Your task to perform on an android device: turn smart compose on in the gmail app Image 0: 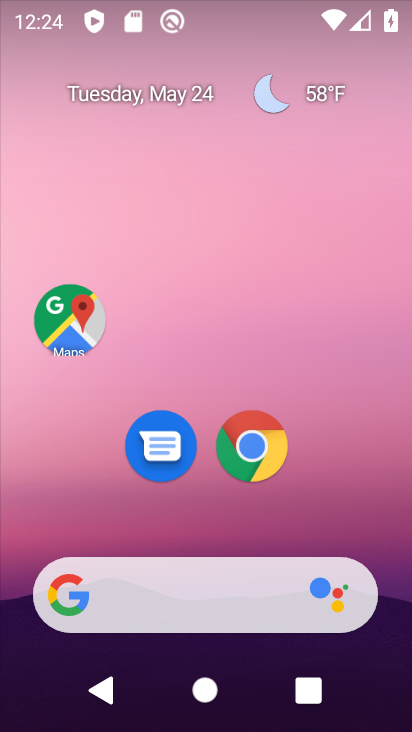
Step 0: drag from (256, 557) to (298, 8)
Your task to perform on an android device: turn smart compose on in the gmail app Image 1: 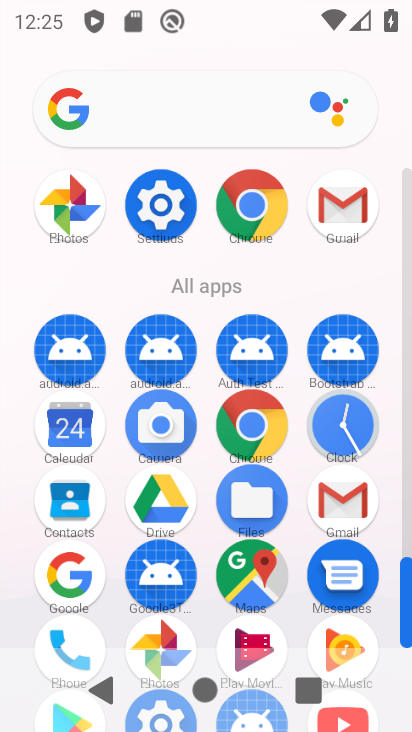
Step 1: click (357, 221)
Your task to perform on an android device: turn smart compose on in the gmail app Image 2: 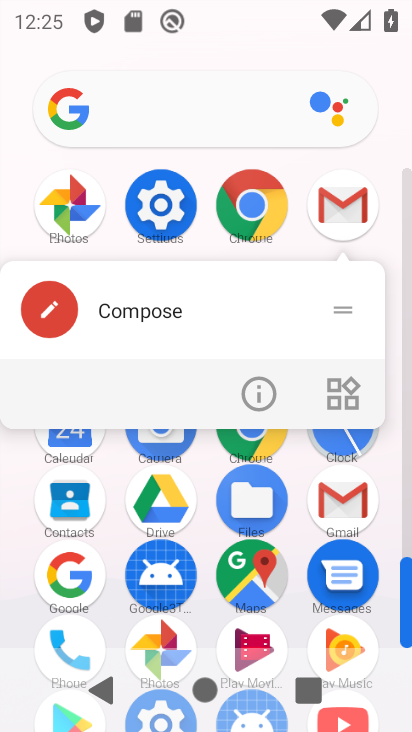
Step 2: click (357, 219)
Your task to perform on an android device: turn smart compose on in the gmail app Image 3: 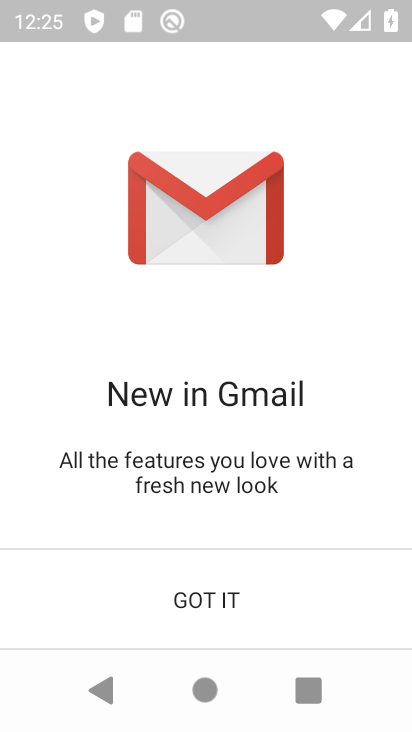
Step 3: click (224, 590)
Your task to perform on an android device: turn smart compose on in the gmail app Image 4: 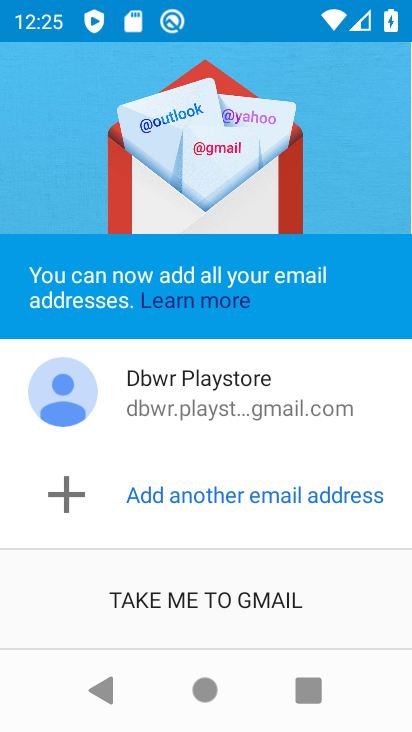
Step 4: click (224, 590)
Your task to perform on an android device: turn smart compose on in the gmail app Image 5: 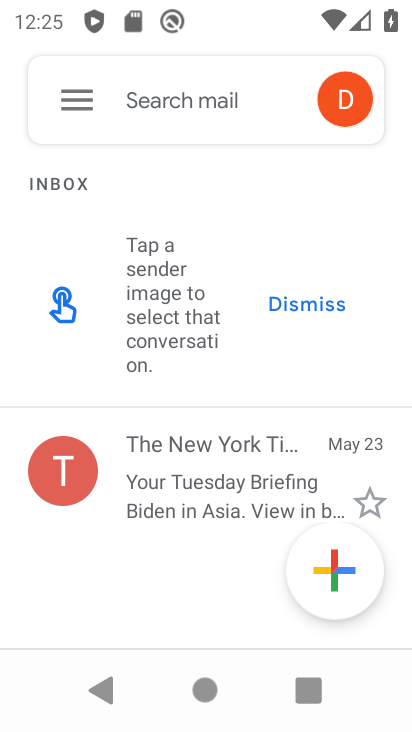
Step 5: click (78, 118)
Your task to perform on an android device: turn smart compose on in the gmail app Image 6: 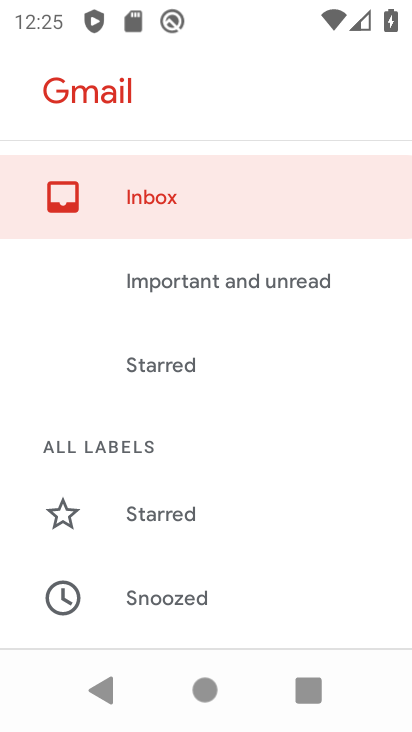
Step 6: drag from (165, 563) to (159, 127)
Your task to perform on an android device: turn smart compose on in the gmail app Image 7: 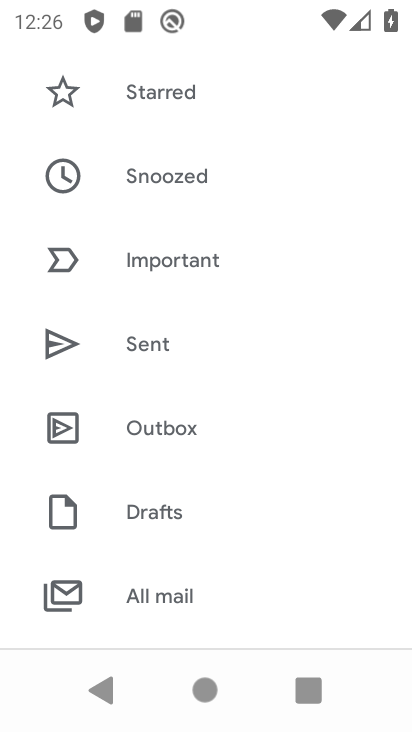
Step 7: drag from (174, 542) to (131, 174)
Your task to perform on an android device: turn smart compose on in the gmail app Image 8: 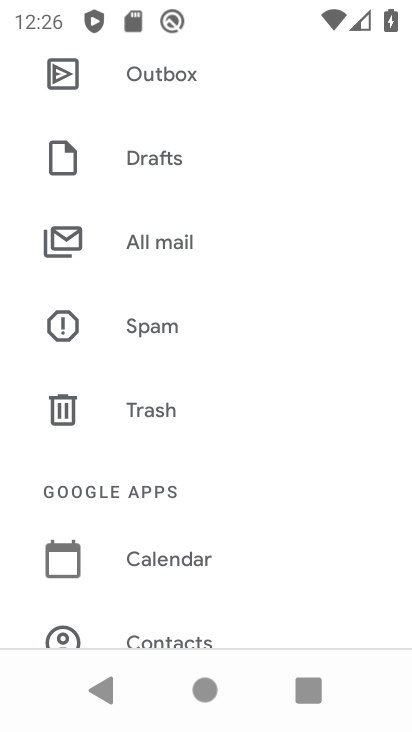
Step 8: drag from (165, 502) to (176, 16)
Your task to perform on an android device: turn smart compose on in the gmail app Image 9: 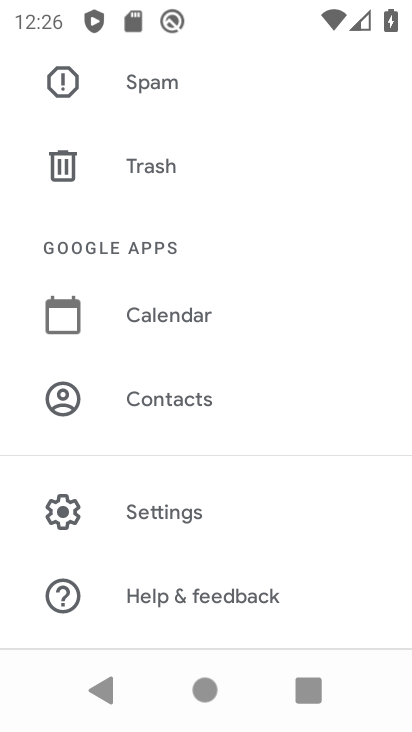
Step 9: click (150, 499)
Your task to perform on an android device: turn smart compose on in the gmail app Image 10: 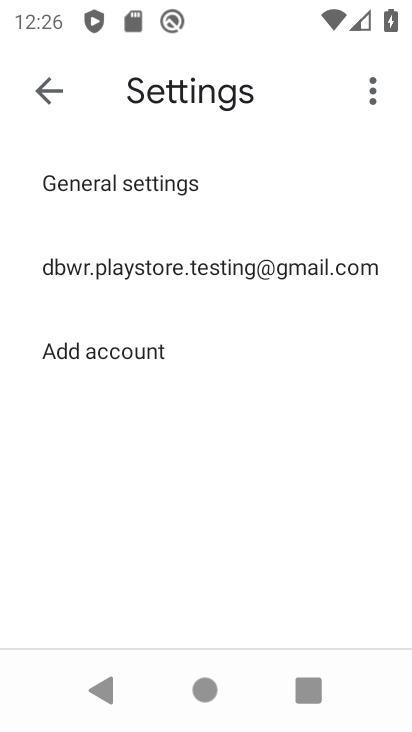
Step 10: click (162, 262)
Your task to perform on an android device: turn smart compose on in the gmail app Image 11: 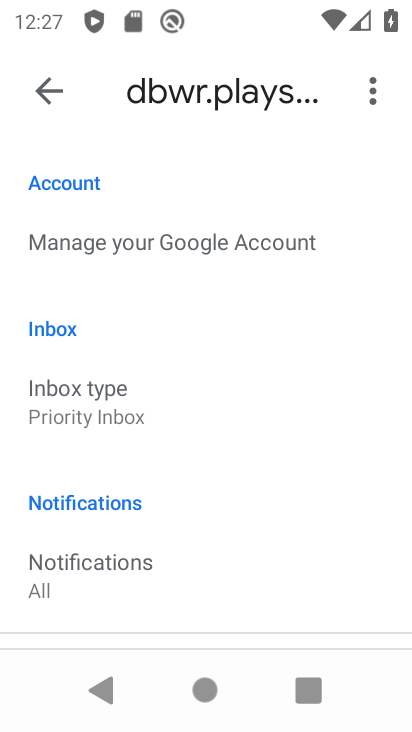
Step 11: task complete